Your task to perform on an android device: Toggle the flashlight Image 0: 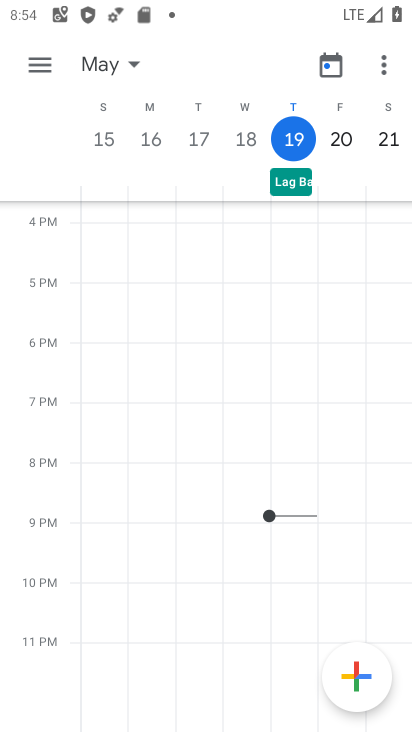
Step 0: press back button
Your task to perform on an android device: Toggle the flashlight Image 1: 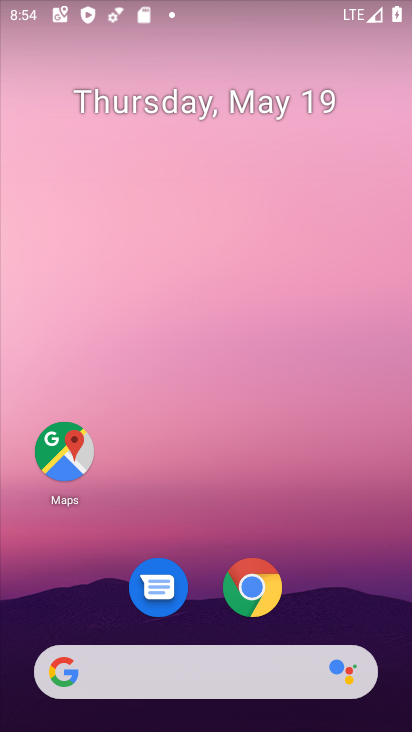
Step 1: drag from (340, 573) to (301, 5)
Your task to perform on an android device: Toggle the flashlight Image 2: 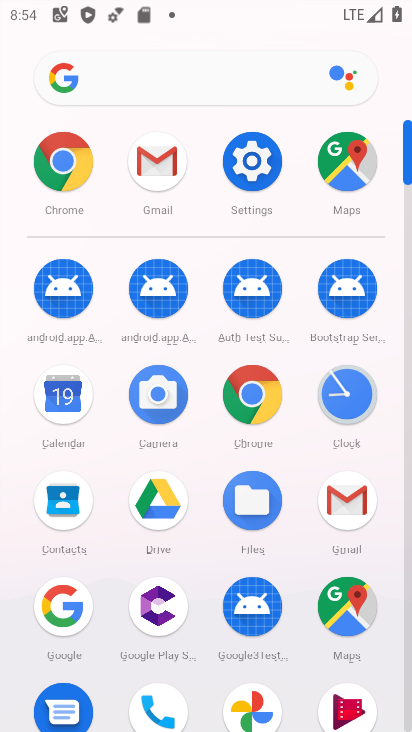
Step 2: click (253, 154)
Your task to perform on an android device: Toggle the flashlight Image 3: 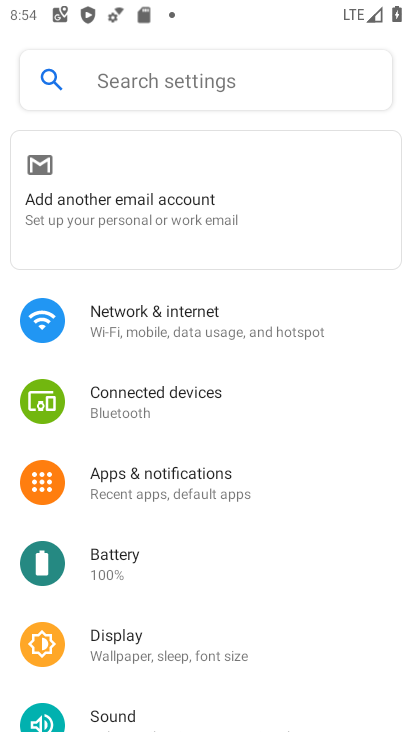
Step 3: click (214, 313)
Your task to perform on an android device: Toggle the flashlight Image 4: 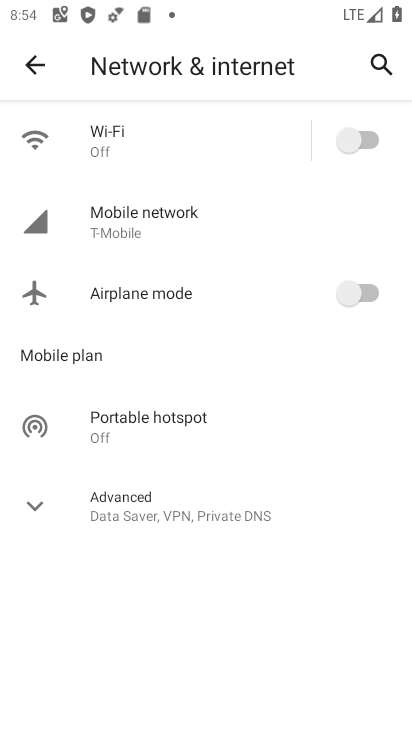
Step 4: click (56, 504)
Your task to perform on an android device: Toggle the flashlight Image 5: 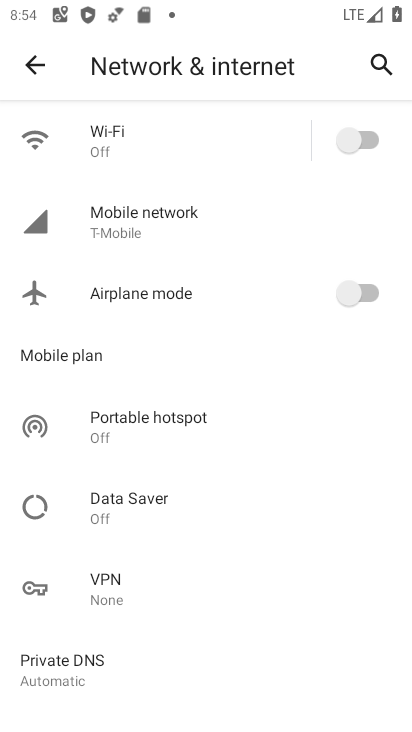
Step 5: task complete